Your task to perform on an android device: open chrome and create a bookmark for the current page Image 0: 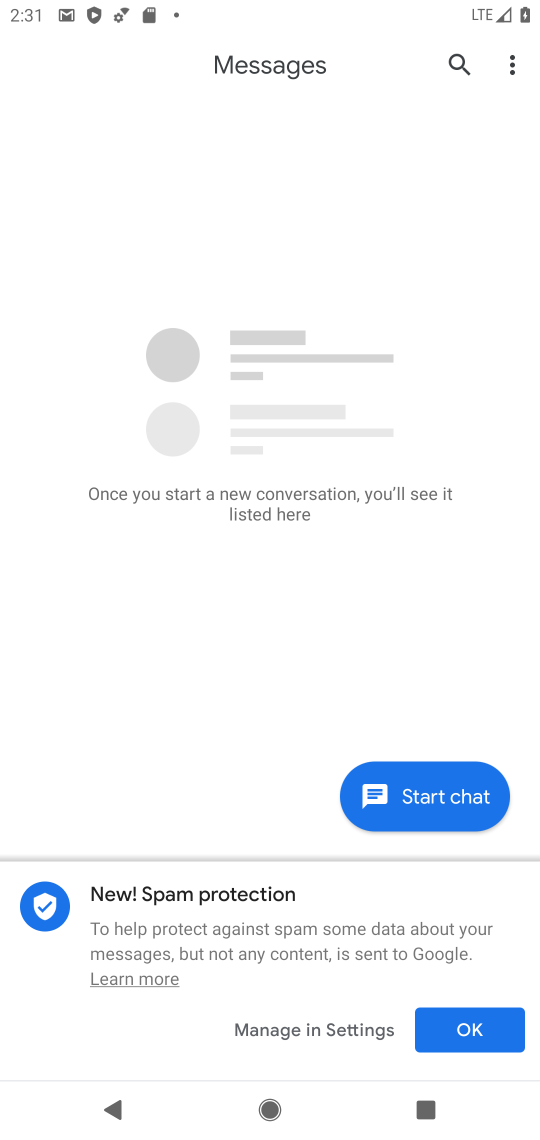
Step 0: press home button
Your task to perform on an android device: open chrome and create a bookmark for the current page Image 1: 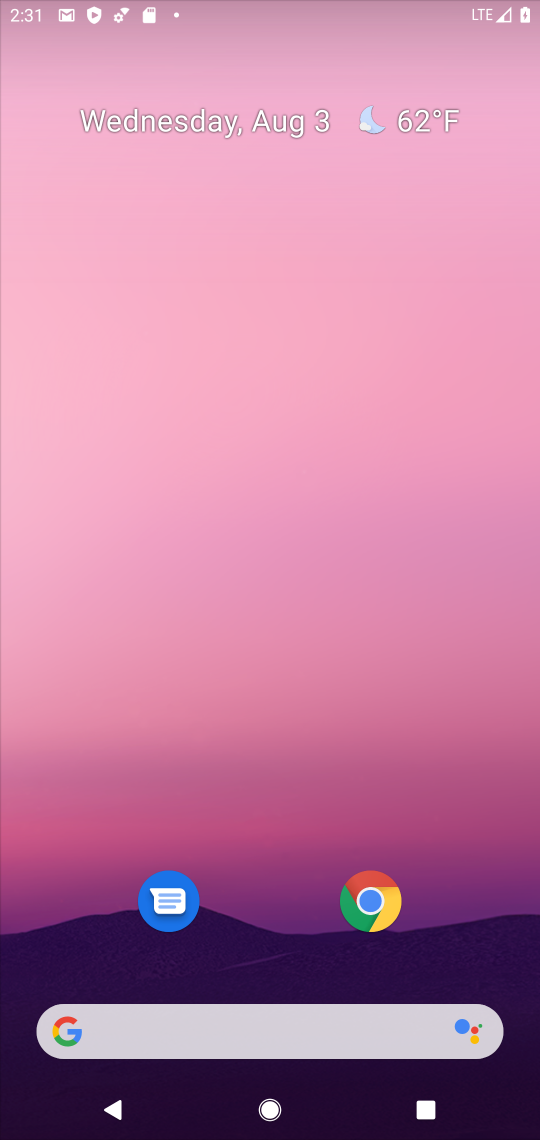
Step 1: drag from (243, 1008) to (268, 202)
Your task to perform on an android device: open chrome and create a bookmark for the current page Image 2: 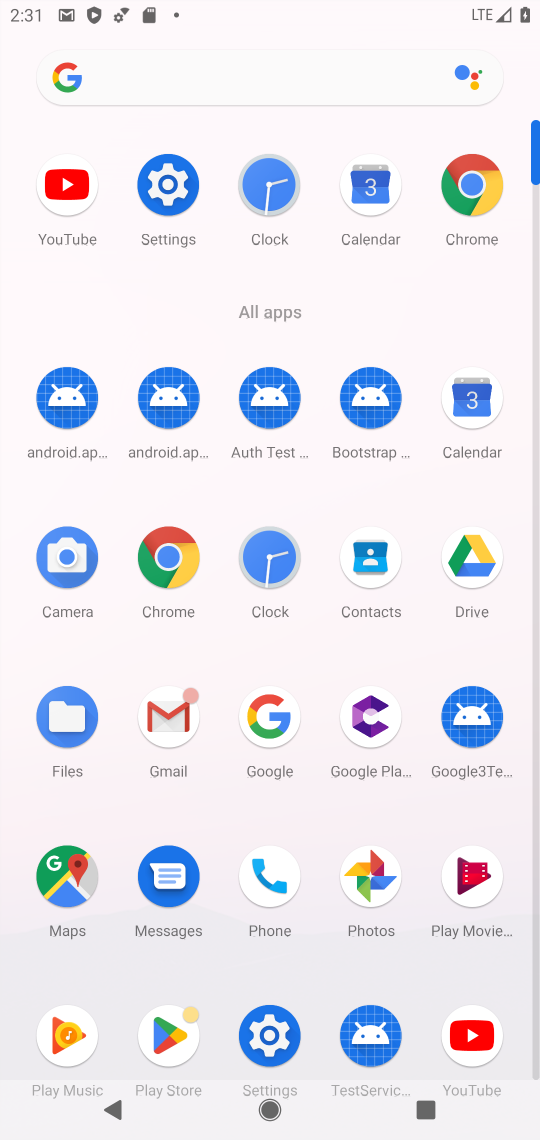
Step 2: click (171, 559)
Your task to perform on an android device: open chrome and create a bookmark for the current page Image 3: 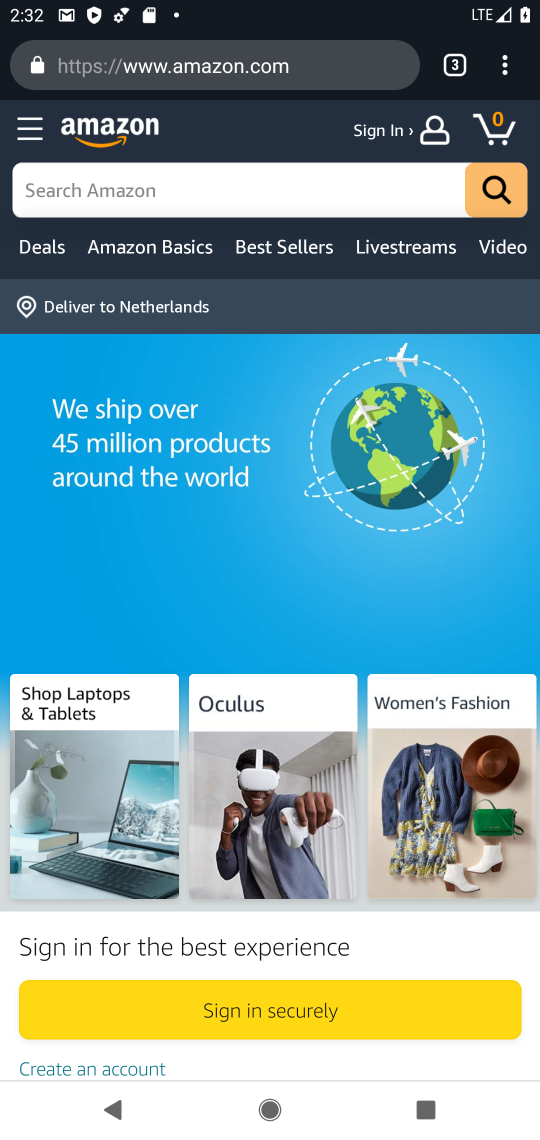
Step 3: click (499, 79)
Your task to perform on an android device: open chrome and create a bookmark for the current page Image 4: 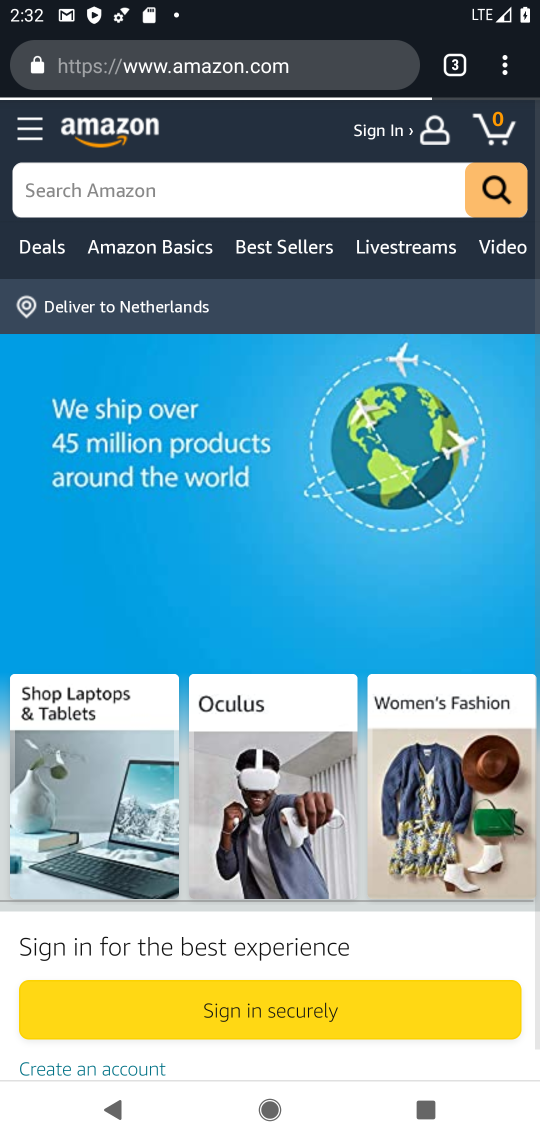
Step 4: click (503, 75)
Your task to perform on an android device: open chrome and create a bookmark for the current page Image 5: 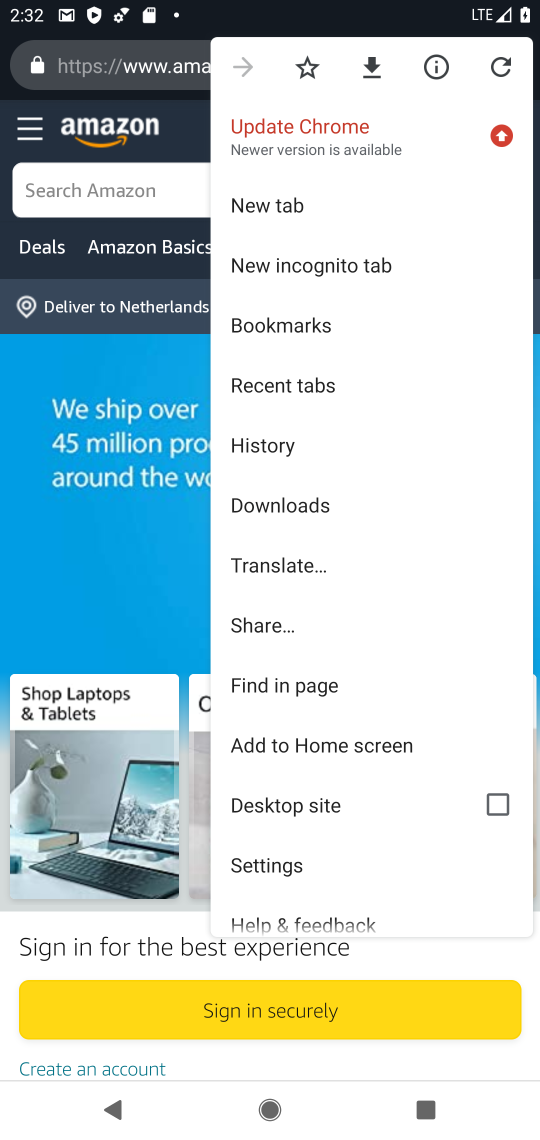
Step 5: click (314, 69)
Your task to perform on an android device: open chrome and create a bookmark for the current page Image 6: 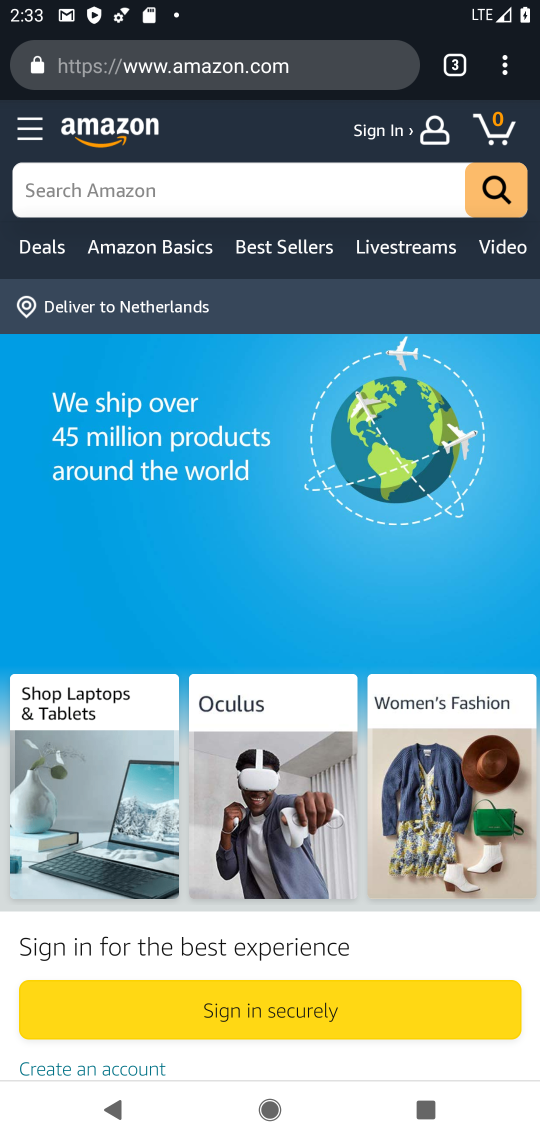
Step 6: task complete